Your task to perform on an android device: Open calendar and show me the second week of next month Image 0: 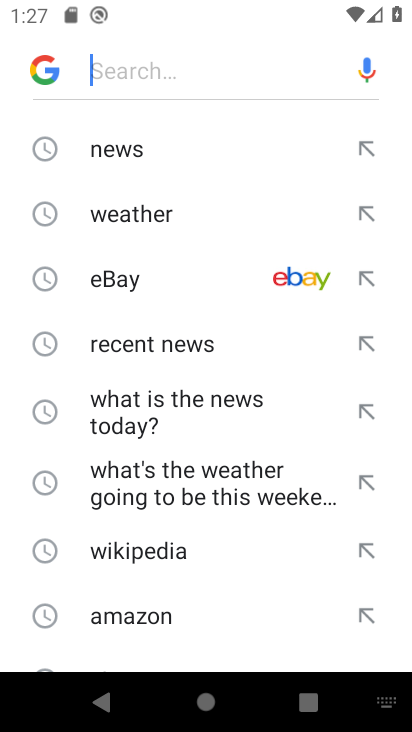
Step 0: press home button
Your task to perform on an android device: Open calendar and show me the second week of next month Image 1: 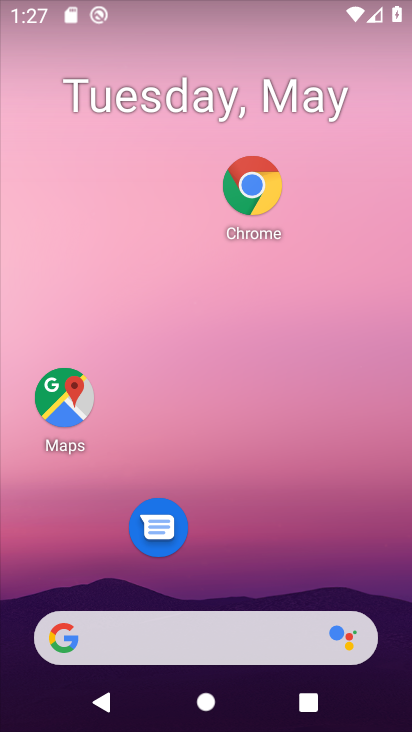
Step 1: drag from (247, 525) to (229, 15)
Your task to perform on an android device: Open calendar and show me the second week of next month Image 2: 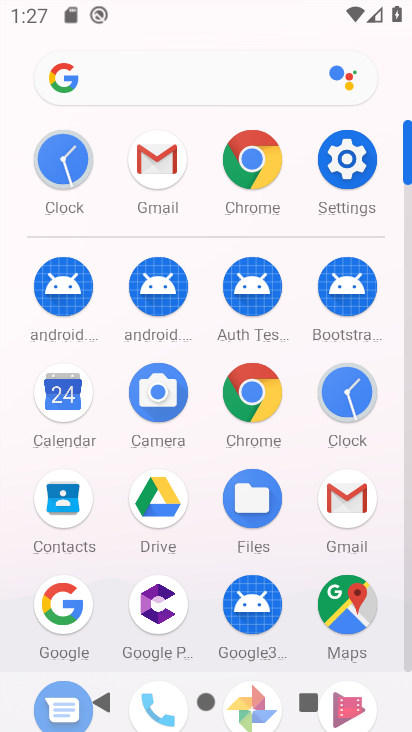
Step 2: click (67, 402)
Your task to perform on an android device: Open calendar and show me the second week of next month Image 3: 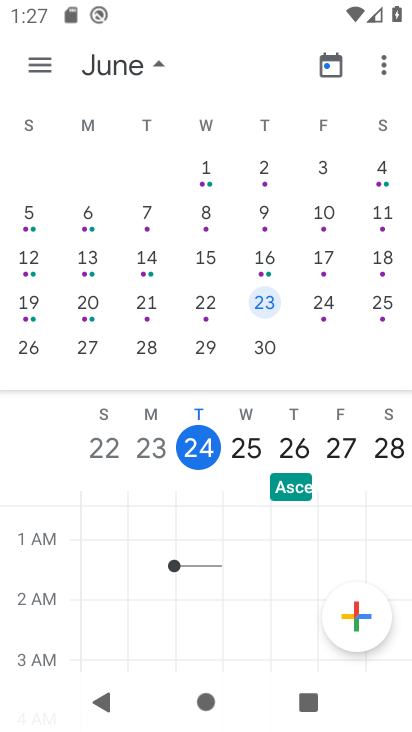
Step 3: click (205, 209)
Your task to perform on an android device: Open calendar and show me the second week of next month Image 4: 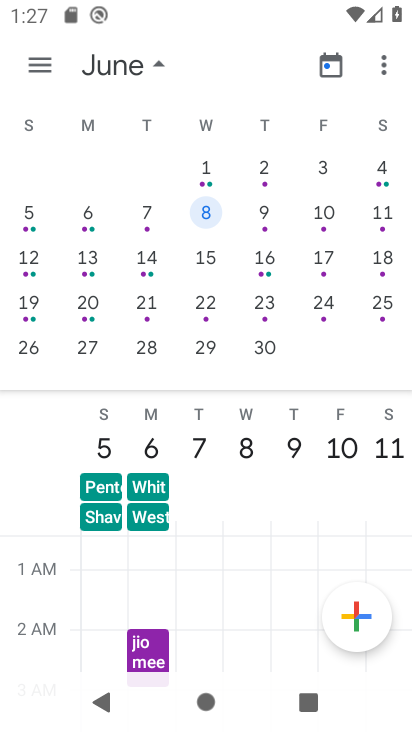
Step 4: task complete